Your task to perform on an android device: Go to Google maps Image 0: 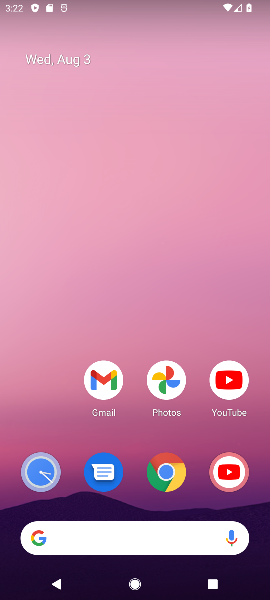
Step 0: drag from (207, 439) to (122, 21)
Your task to perform on an android device: Go to Google maps Image 1: 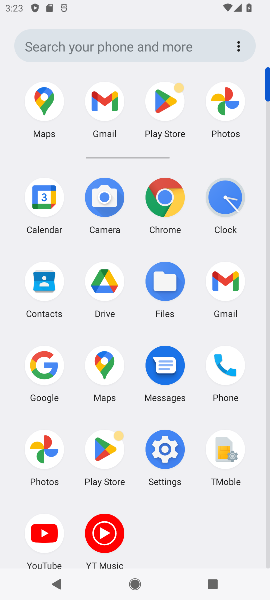
Step 1: click (107, 352)
Your task to perform on an android device: Go to Google maps Image 2: 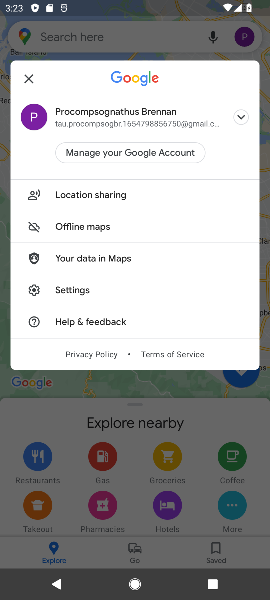
Step 2: task complete